Your task to perform on an android device: change the clock display to digital Image 0: 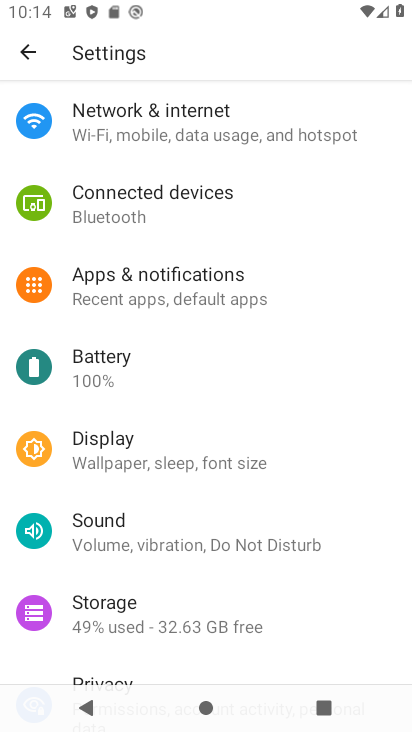
Step 0: press home button
Your task to perform on an android device: change the clock display to digital Image 1: 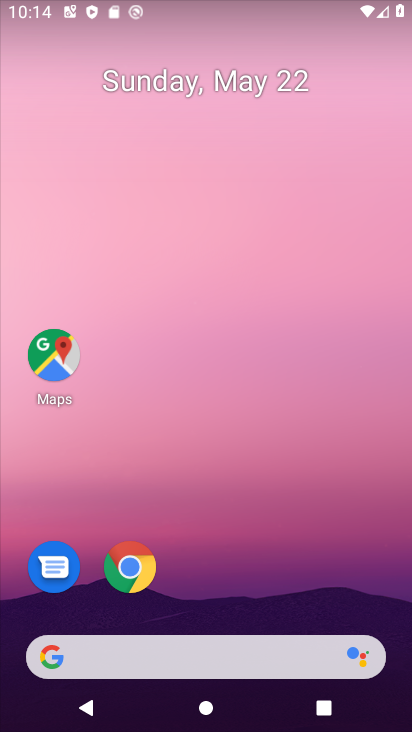
Step 1: drag from (174, 667) to (23, 24)
Your task to perform on an android device: change the clock display to digital Image 2: 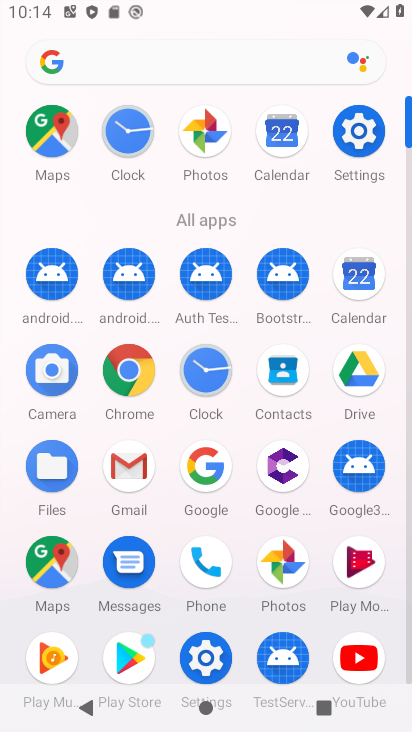
Step 2: click (209, 382)
Your task to perform on an android device: change the clock display to digital Image 3: 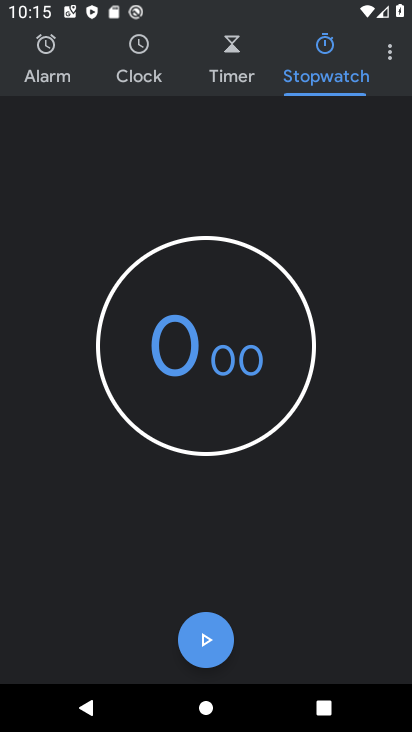
Step 3: click (396, 47)
Your task to perform on an android device: change the clock display to digital Image 4: 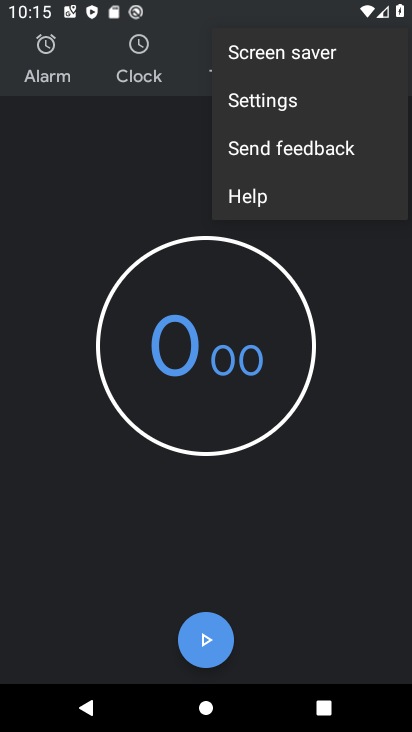
Step 4: click (283, 112)
Your task to perform on an android device: change the clock display to digital Image 5: 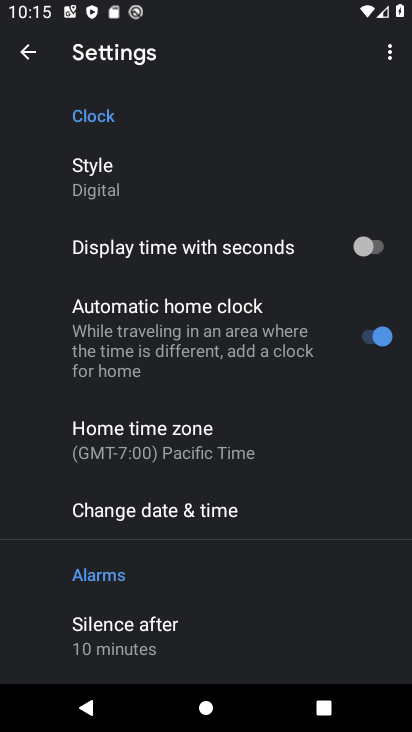
Step 5: task complete